Your task to perform on an android device: check battery use Image 0: 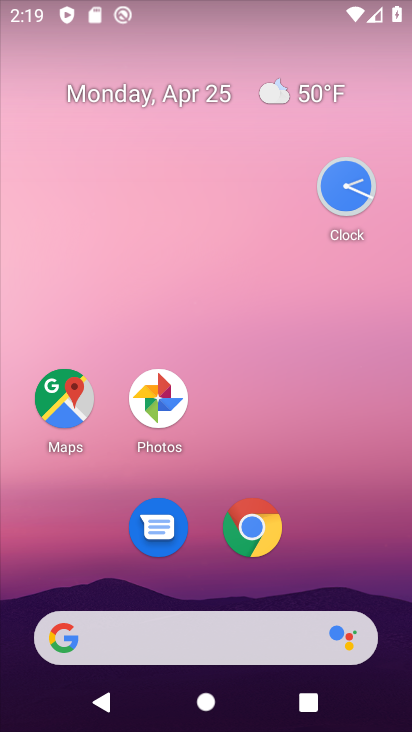
Step 0: drag from (323, 544) to (256, 164)
Your task to perform on an android device: check battery use Image 1: 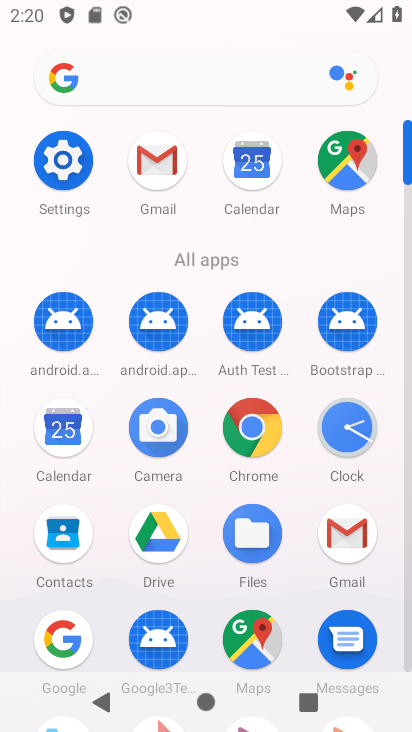
Step 1: click (69, 190)
Your task to perform on an android device: check battery use Image 2: 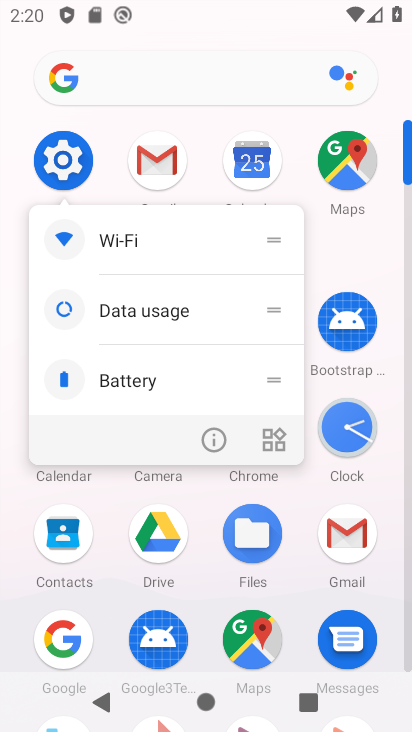
Step 2: click (77, 154)
Your task to perform on an android device: check battery use Image 3: 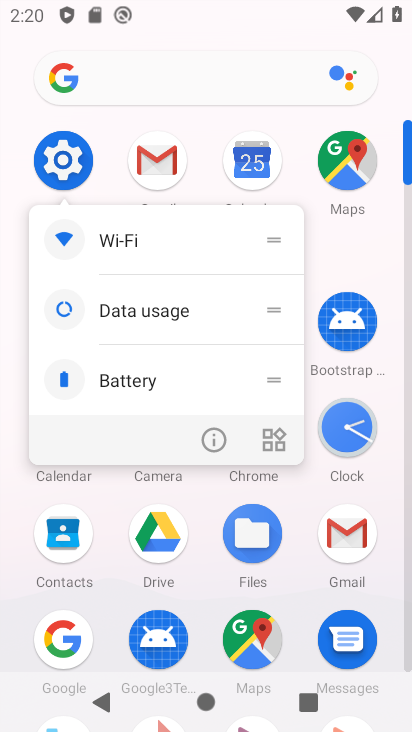
Step 3: click (58, 168)
Your task to perform on an android device: check battery use Image 4: 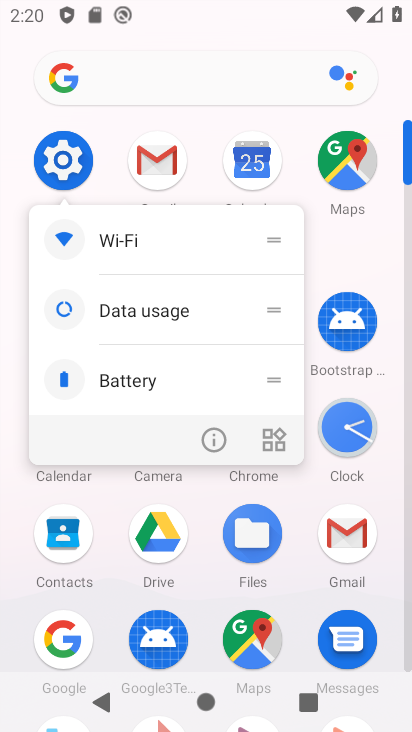
Step 4: click (122, 384)
Your task to perform on an android device: check battery use Image 5: 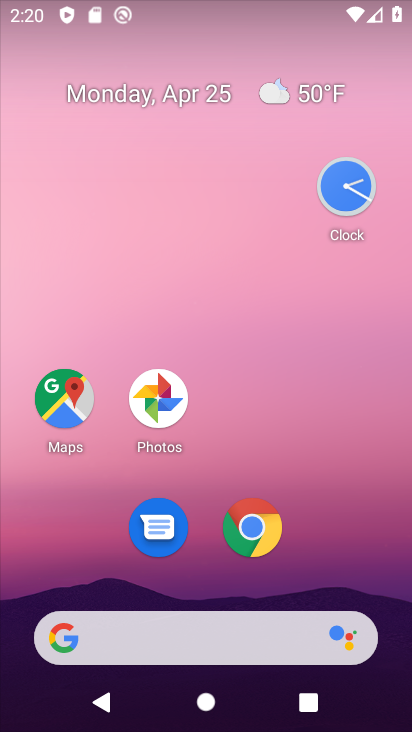
Step 5: drag from (341, 589) to (318, 8)
Your task to perform on an android device: check battery use Image 6: 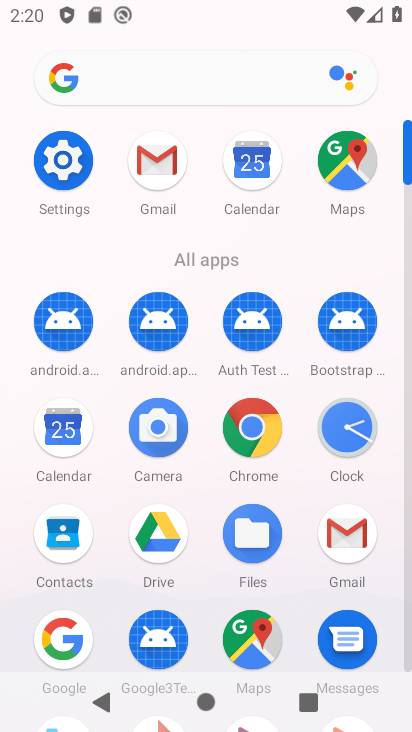
Step 6: click (59, 158)
Your task to perform on an android device: check battery use Image 7: 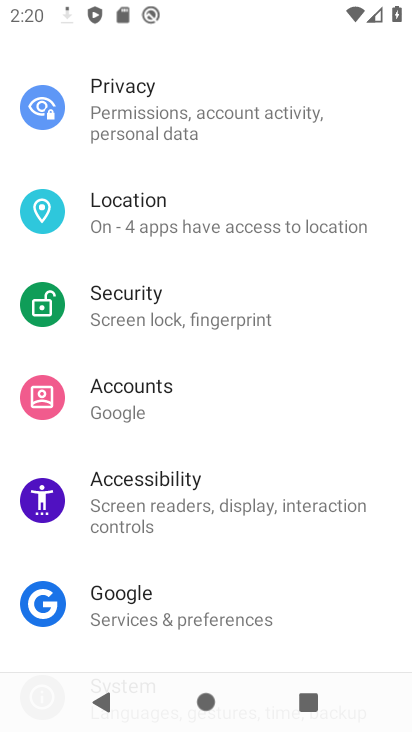
Step 7: drag from (179, 586) to (141, 664)
Your task to perform on an android device: check battery use Image 8: 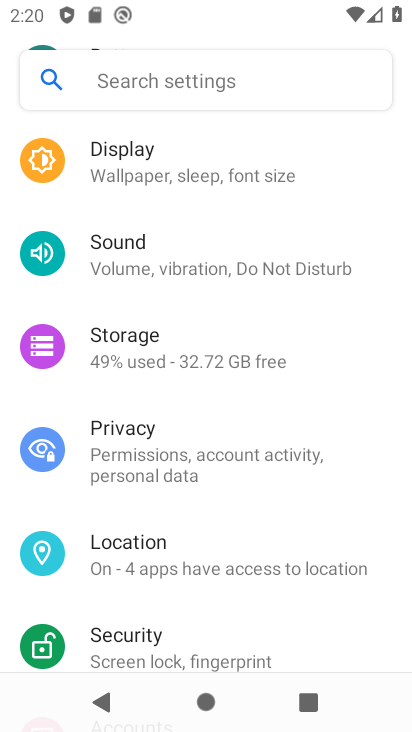
Step 8: drag from (139, 177) to (170, 599)
Your task to perform on an android device: check battery use Image 9: 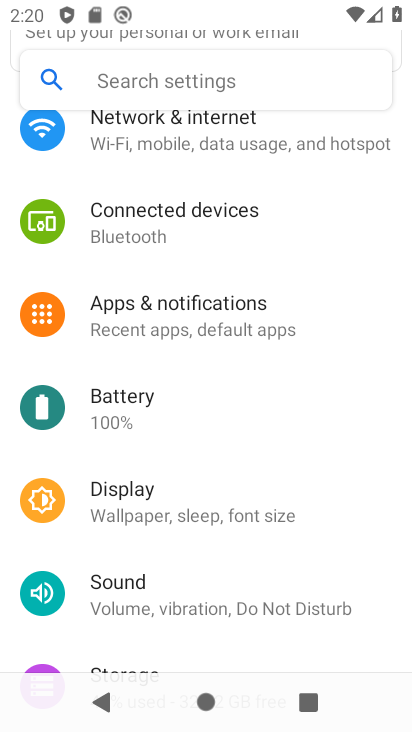
Step 9: click (145, 406)
Your task to perform on an android device: check battery use Image 10: 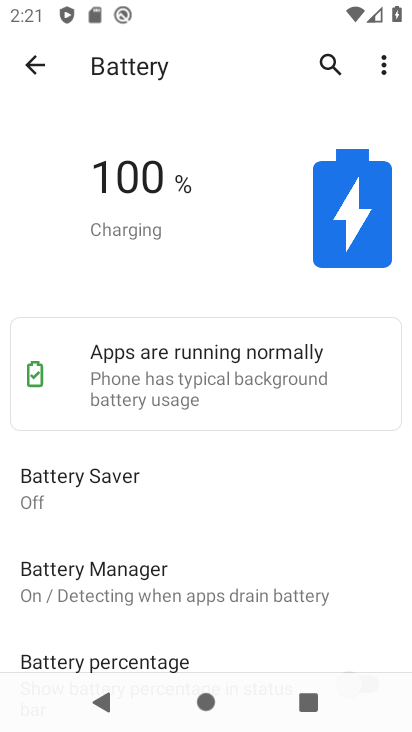
Step 10: click (390, 68)
Your task to perform on an android device: check battery use Image 11: 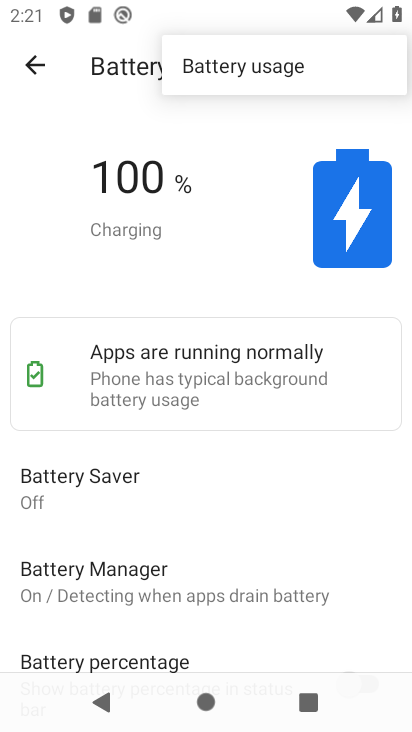
Step 11: click (289, 67)
Your task to perform on an android device: check battery use Image 12: 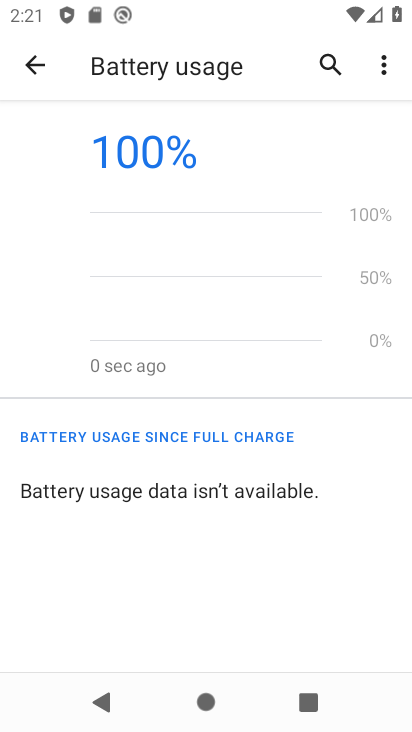
Step 12: task complete